Your task to perform on an android device: snooze an email in the gmail app Image 0: 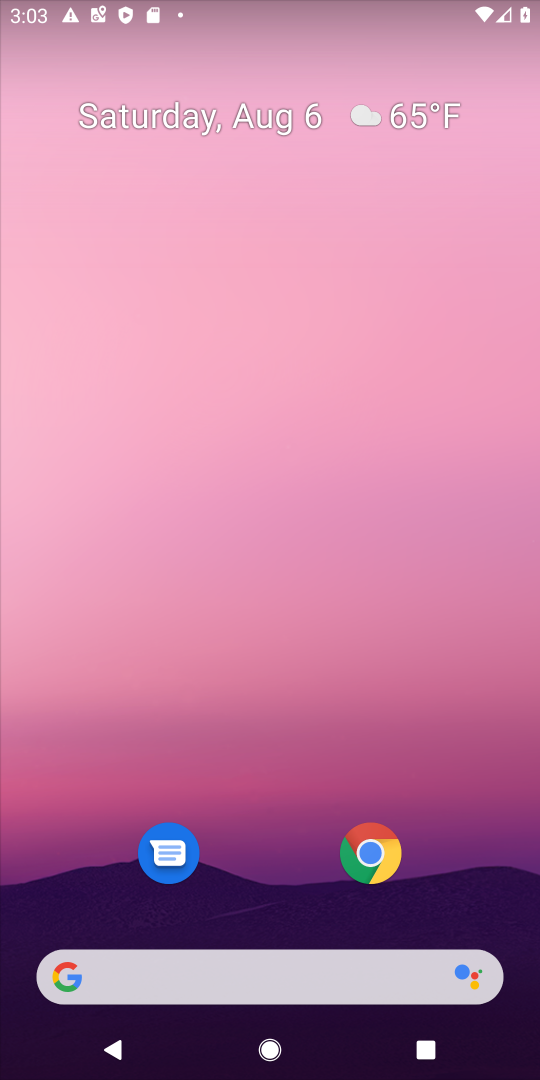
Step 0: drag from (269, 897) to (381, 201)
Your task to perform on an android device: snooze an email in the gmail app Image 1: 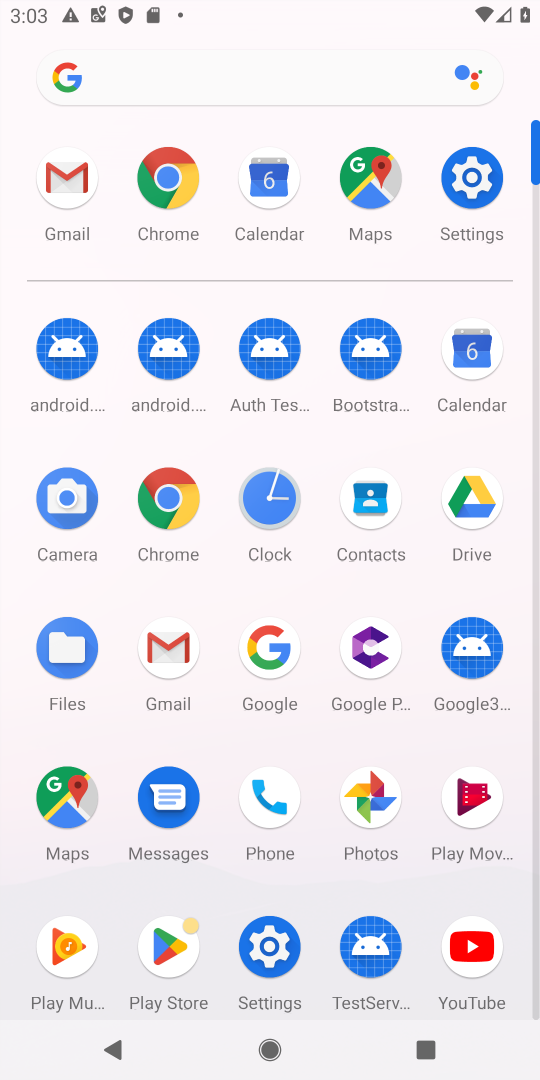
Step 1: click (63, 165)
Your task to perform on an android device: snooze an email in the gmail app Image 2: 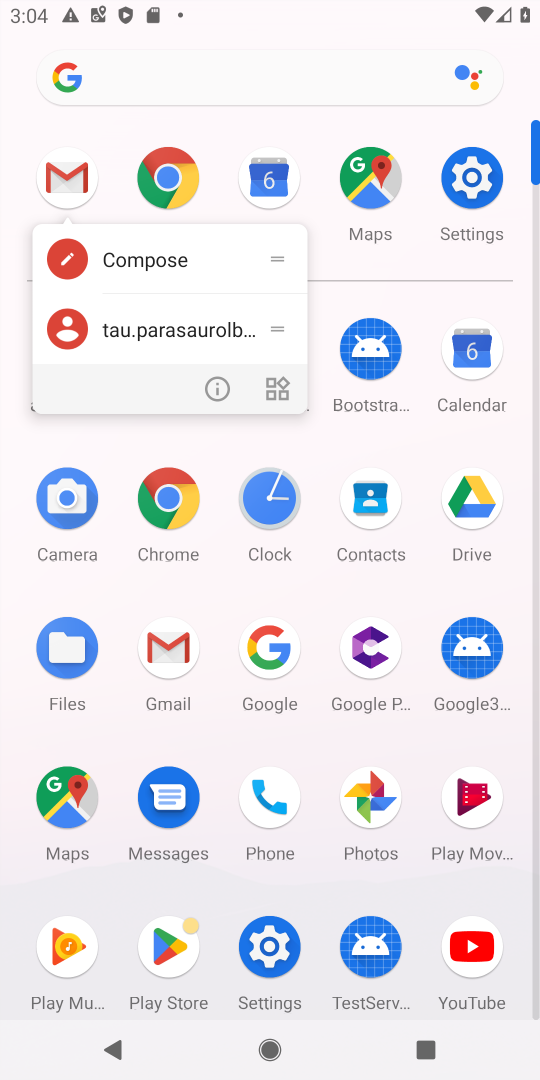
Step 2: click (63, 176)
Your task to perform on an android device: snooze an email in the gmail app Image 3: 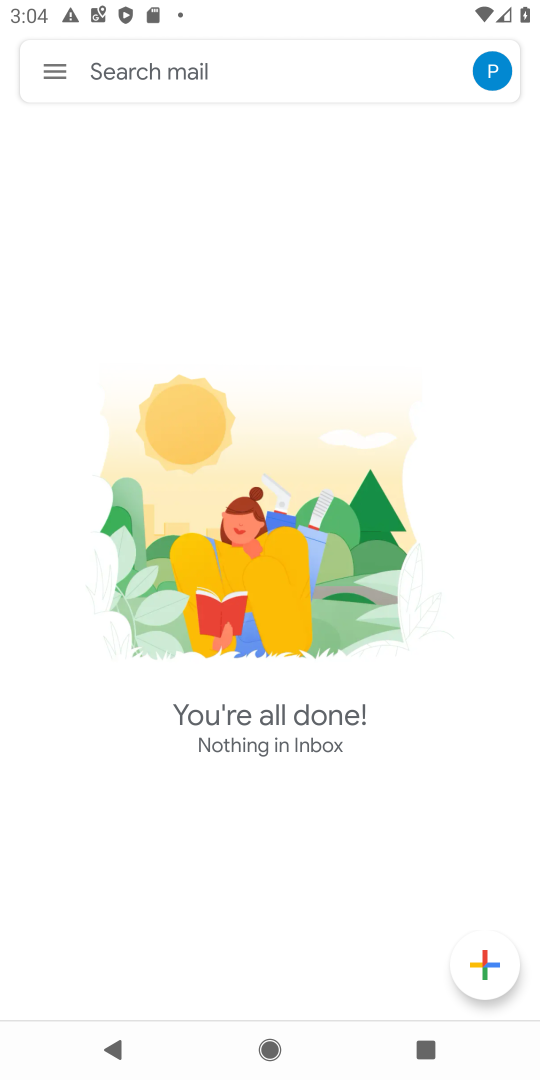
Step 3: click (49, 76)
Your task to perform on an android device: snooze an email in the gmail app Image 4: 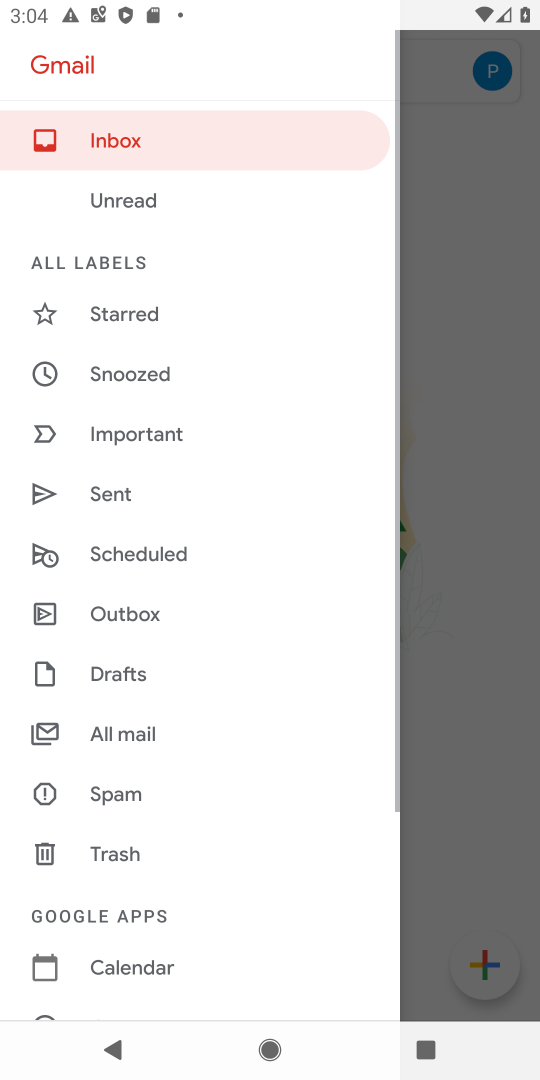
Step 4: click (108, 737)
Your task to perform on an android device: snooze an email in the gmail app Image 5: 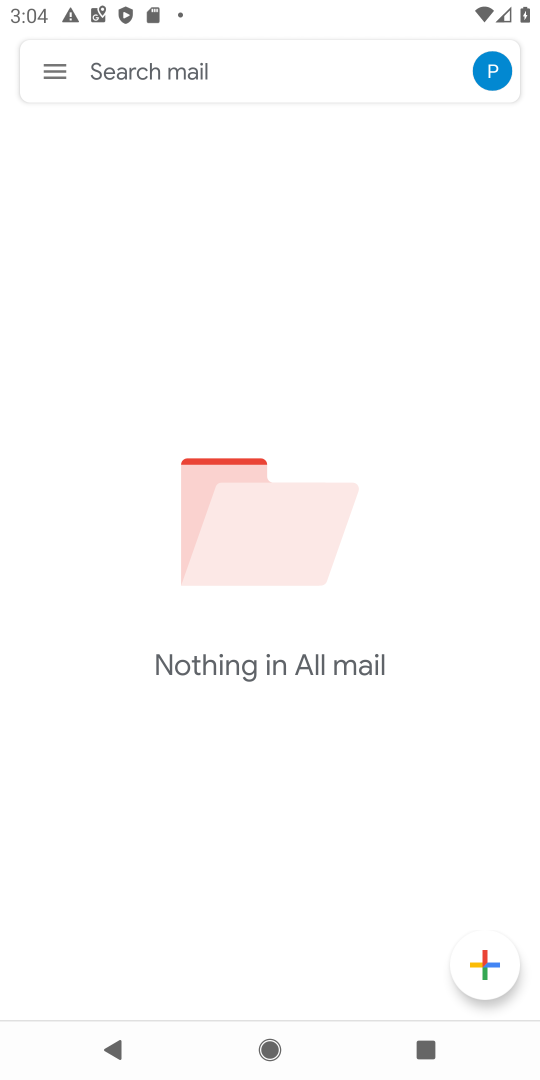
Step 5: task complete